Your task to perform on an android device: turn on airplane mode Image 0: 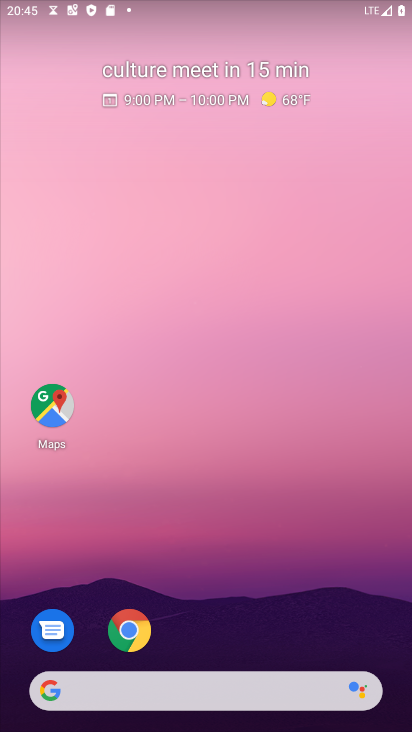
Step 0: drag from (257, 641) to (217, 160)
Your task to perform on an android device: turn on airplane mode Image 1: 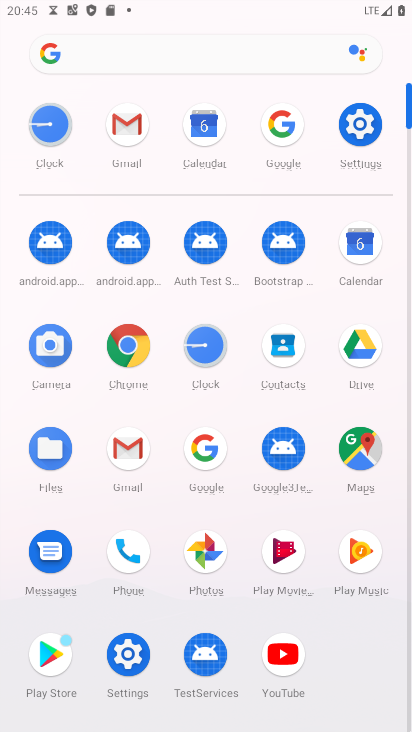
Step 1: click (357, 124)
Your task to perform on an android device: turn on airplane mode Image 2: 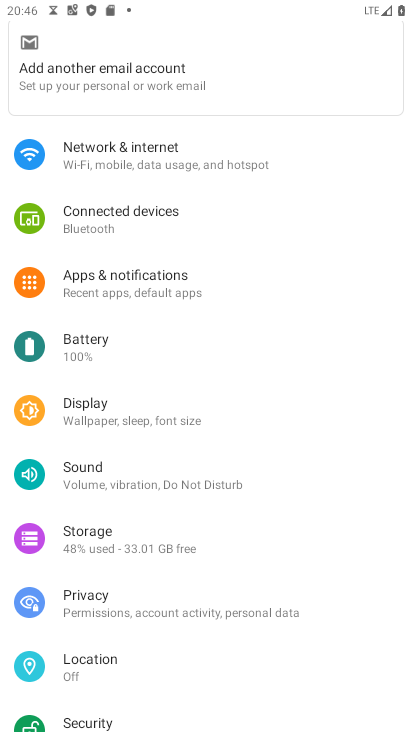
Step 2: click (150, 164)
Your task to perform on an android device: turn on airplane mode Image 3: 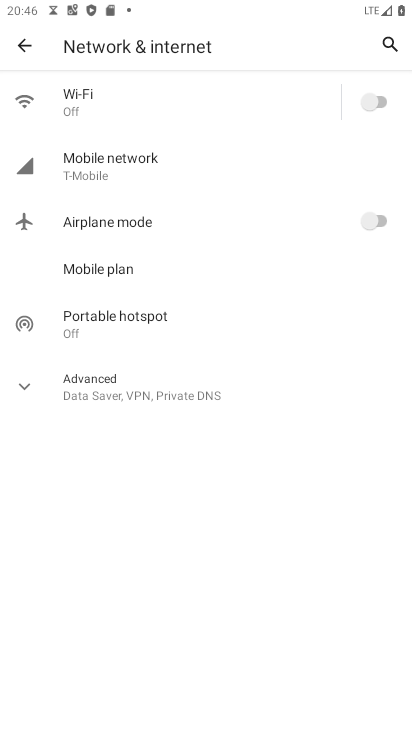
Step 3: click (371, 226)
Your task to perform on an android device: turn on airplane mode Image 4: 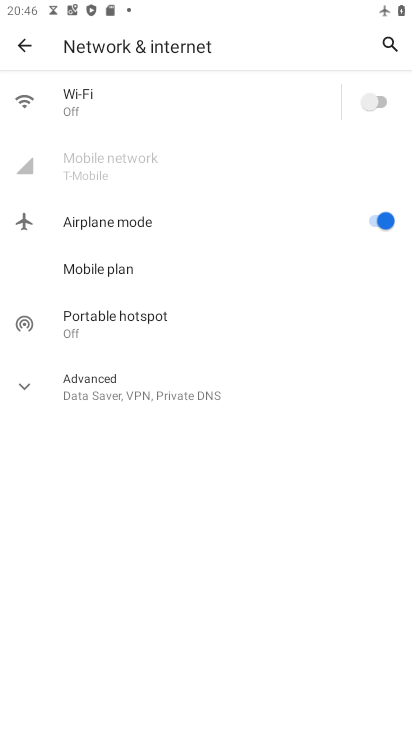
Step 4: task complete